Your task to perform on an android device: Find coffee shops on Maps Image 0: 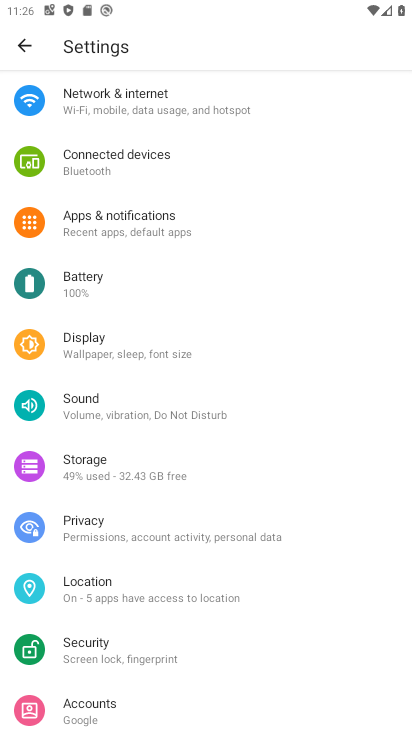
Step 0: press home button
Your task to perform on an android device: Find coffee shops on Maps Image 1: 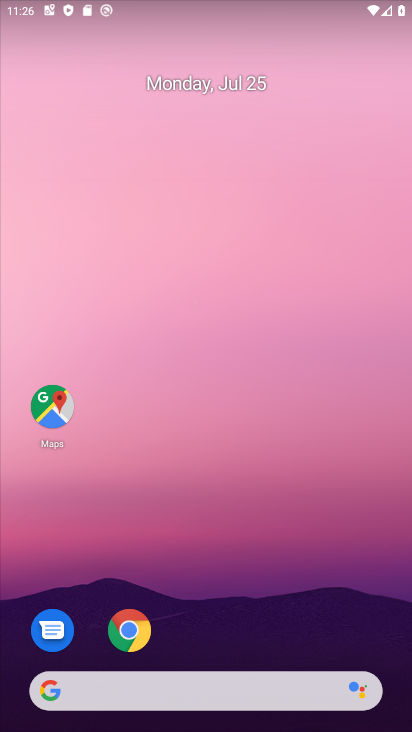
Step 1: drag from (387, 623) to (380, 194)
Your task to perform on an android device: Find coffee shops on Maps Image 2: 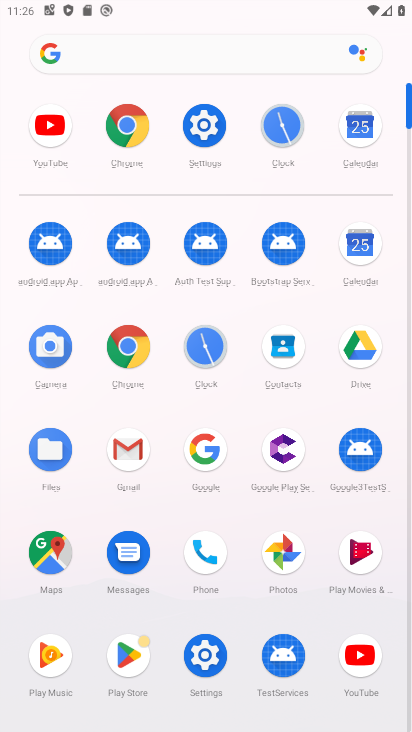
Step 2: click (48, 555)
Your task to perform on an android device: Find coffee shops on Maps Image 3: 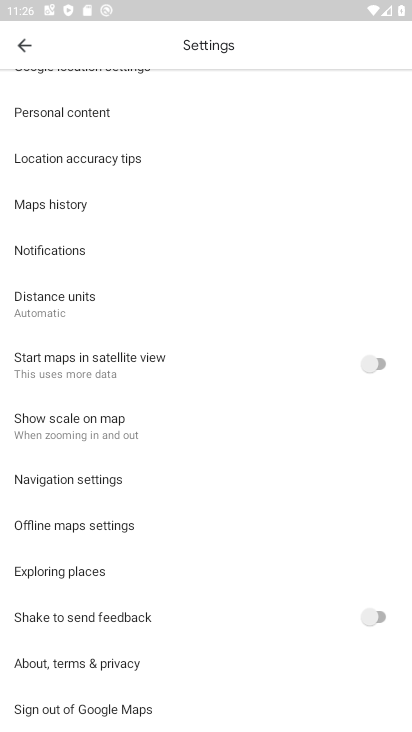
Step 3: press back button
Your task to perform on an android device: Find coffee shops on Maps Image 4: 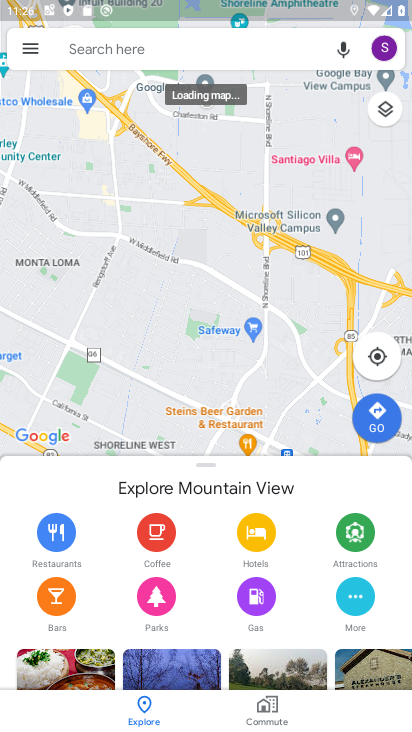
Step 4: click (184, 43)
Your task to perform on an android device: Find coffee shops on Maps Image 5: 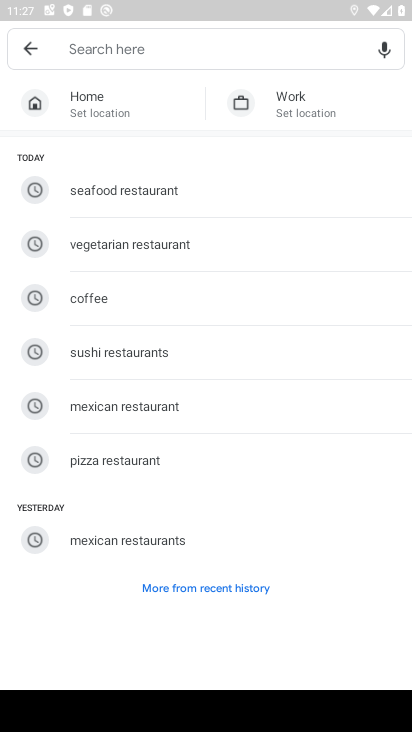
Step 5: type "coffee shops"
Your task to perform on an android device: Find coffee shops on Maps Image 6: 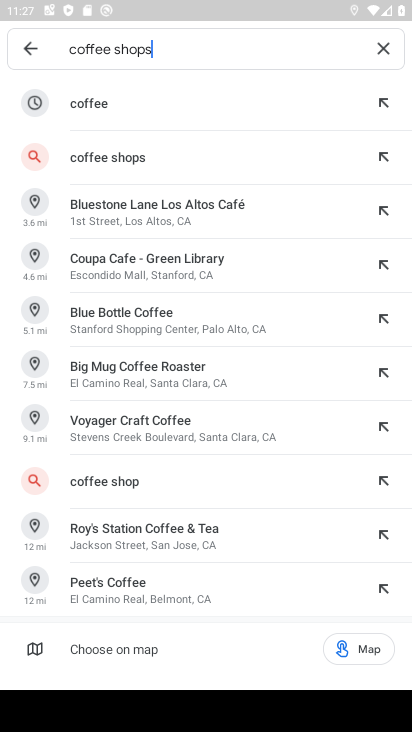
Step 6: click (247, 163)
Your task to perform on an android device: Find coffee shops on Maps Image 7: 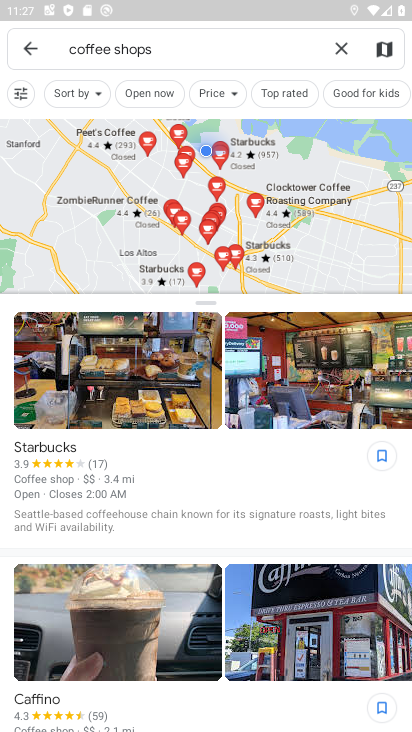
Step 7: task complete